Your task to perform on an android device: What's on my calendar today? Image 0: 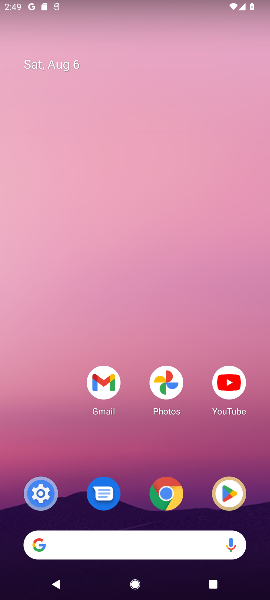
Step 0: drag from (134, 490) to (218, 1)
Your task to perform on an android device: What's on my calendar today? Image 1: 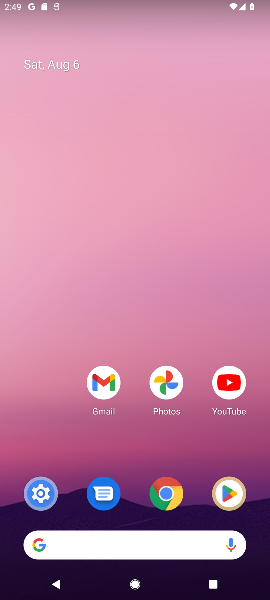
Step 1: drag from (164, 486) to (169, 96)
Your task to perform on an android device: What's on my calendar today? Image 2: 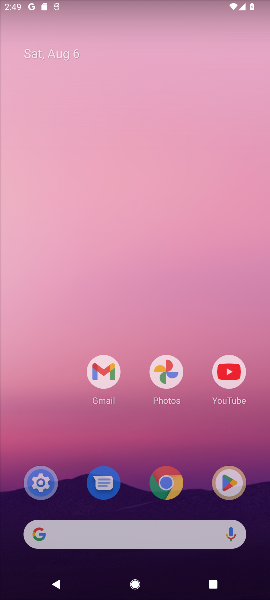
Step 2: drag from (146, 103) to (146, 48)
Your task to perform on an android device: What's on my calendar today? Image 3: 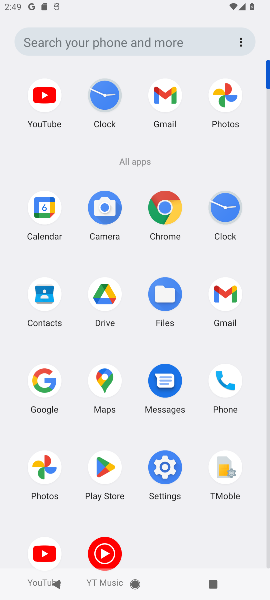
Step 3: drag from (166, 477) to (159, 159)
Your task to perform on an android device: What's on my calendar today? Image 4: 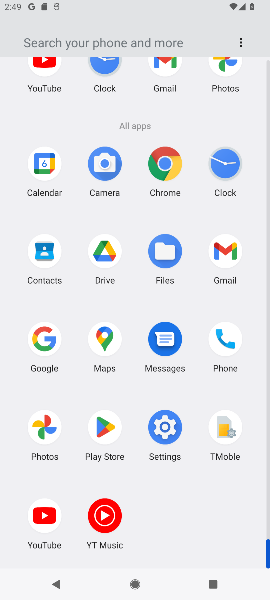
Step 4: drag from (187, 460) to (149, 69)
Your task to perform on an android device: What's on my calendar today? Image 5: 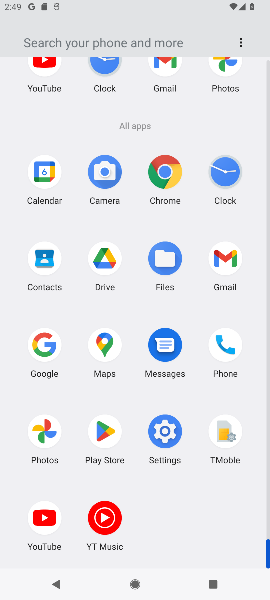
Step 5: click (41, 173)
Your task to perform on an android device: What's on my calendar today? Image 6: 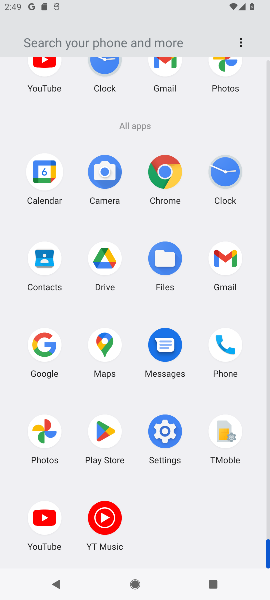
Step 6: click (41, 173)
Your task to perform on an android device: What's on my calendar today? Image 7: 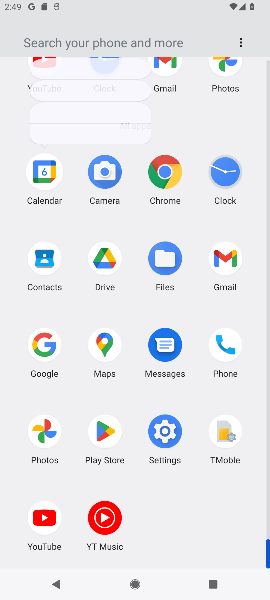
Step 7: click (40, 172)
Your task to perform on an android device: What's on my calendar today? Image 8: 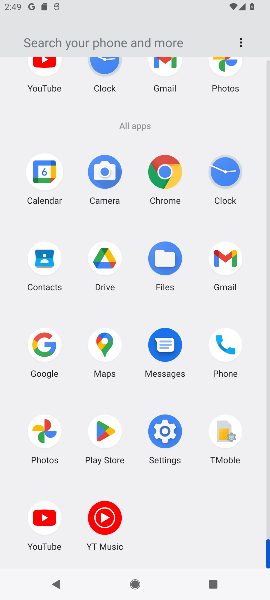
Step 8: click (40, 172)
Your task to perform on an android device: What's on my calendar today? Image 9: 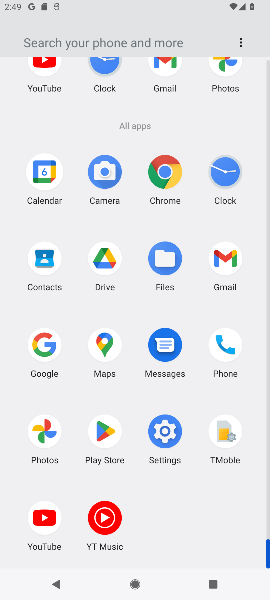
Step 9: click (45, 175)
Your task to perform on an android device: What's on my calendar today? Image 10: 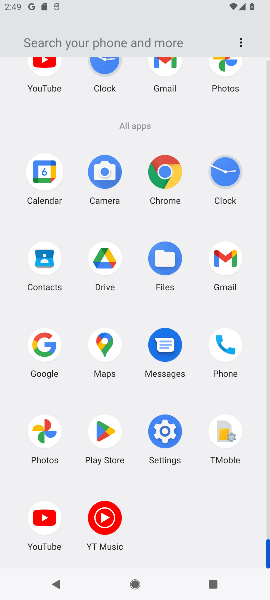
Step 10: click (45, 175)
Your task to perform on an android device: What's on my calendar today? Image 11: 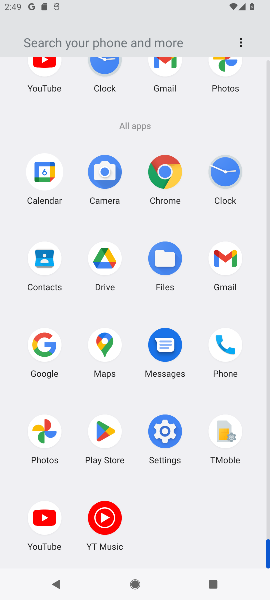
Step 11: click (48, 178)
Your task to perform on an android device: What's on my calendar today? Image 12: 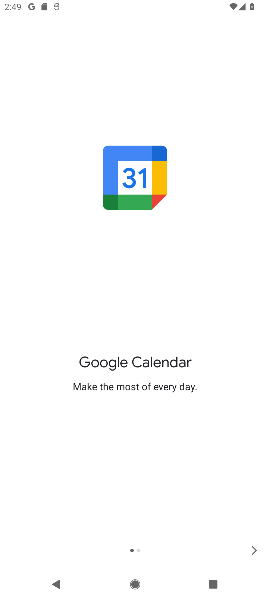
Step 12: click (259, 547)
Your task to perform on an android device: What's on my calendar today? Image 13: 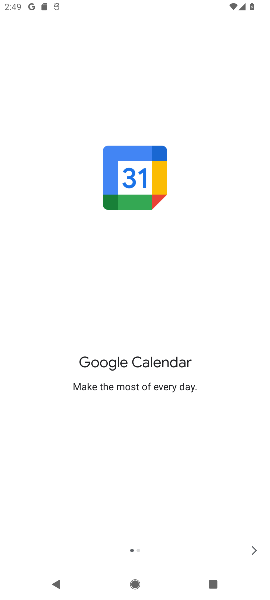
Step 13: click (256, 550)
Your task to perform on an android device: What's on my calendar today? Image 14: 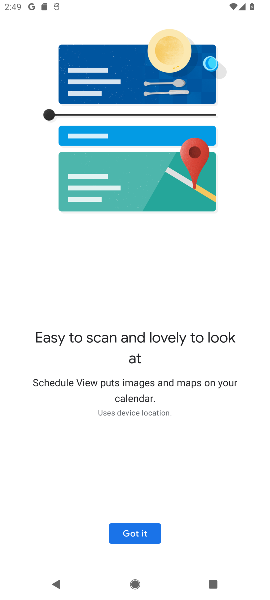
Step 14: click (140, 537)
Your task to perform on an android device: What's on my calendar today? Image 15: 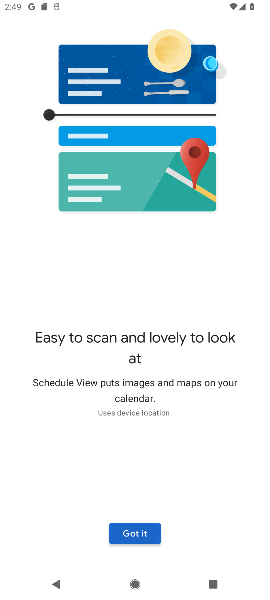
Step 15: click (141, 537)
Your task to perform on an android device: What's on my calendar today? Image 16: 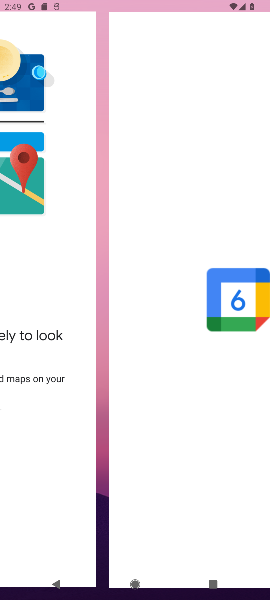
Step 16: click (139, 535)
Your task to perform on an android device: What's on my calendar today? Image 17: 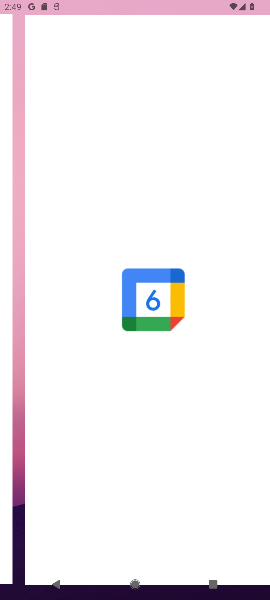
Step 17: click (140, 534)
Your task to perform on an android device: What's on my calendar today? Image 18: 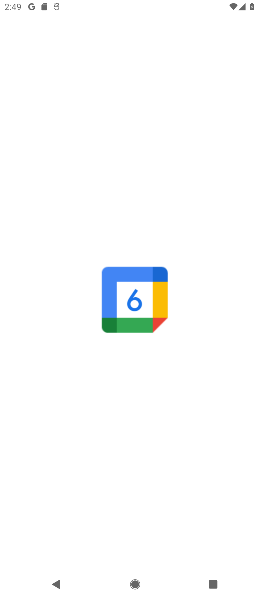
Step 18: click (140, 534)
Your task to perform on an android device: What's on my calendar today? Image 19: 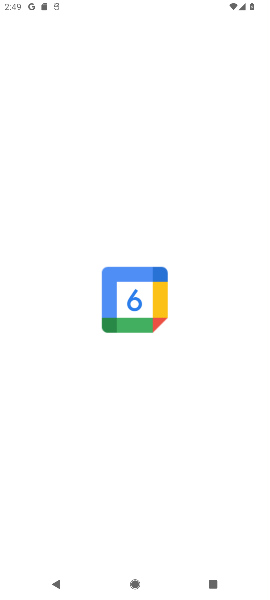
Step 19: click (124, 306)
Your task to perform on an android device: What's on my calendar today? Image 20: 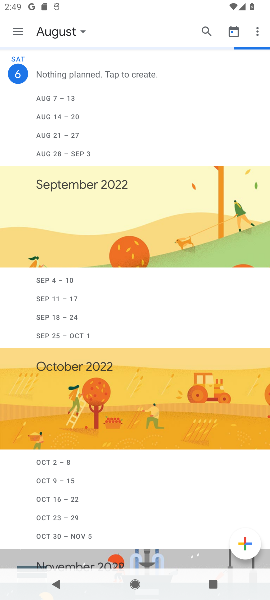
Step 20: click (125, 304)
Your task to perform on an android device: What's on my calendar today? Image 21: 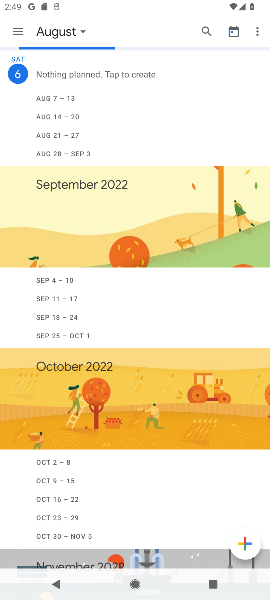
Step 21: click (132, 302)
Your task to perform on an android device: What's on my calendar today? Image 22: 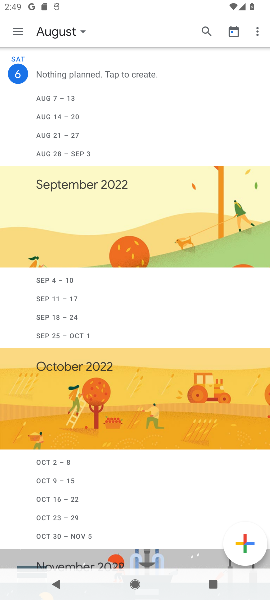
Step 22: click (86, 32)
Your task to perform on an android device: What's on my calendar today? Image 23: 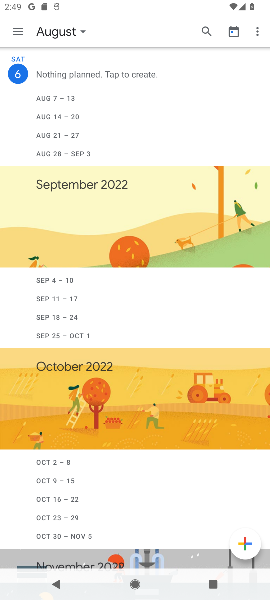
Step 23: click (86, 32)
Your task to perform on an android device: What's on my calendar today? Image 24: 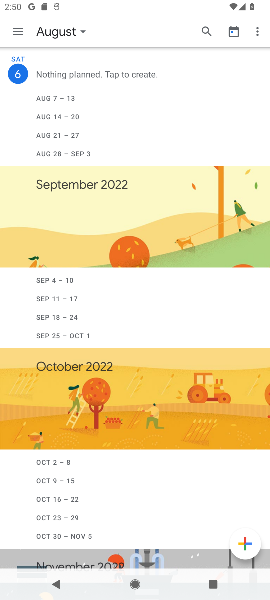
Step 24: click (82, 31)
Your task to perform on an android device: What's on my calendar today? Image 25: 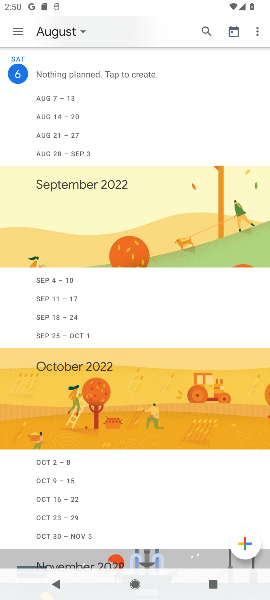
Step 25: click (82, 31)
Your task to perform on an android device: What's on my calendar today? Image 26: 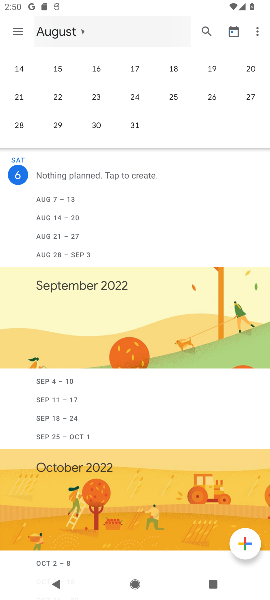
Step 26: click (82, 31)
Your task to perform on an android device: What's on my calendar today? Image 27: 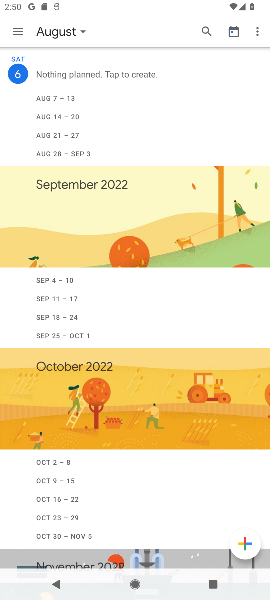
Step 27: task complete